Your task to perform on an android device: set an alarm Image 0: 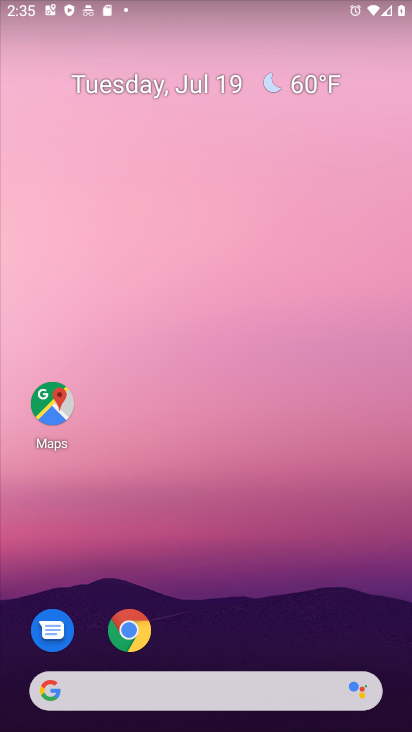
Step 0: drag from (277, 688) to (175, 172)
Your task to perform on an android device: set an alarm Image 1: 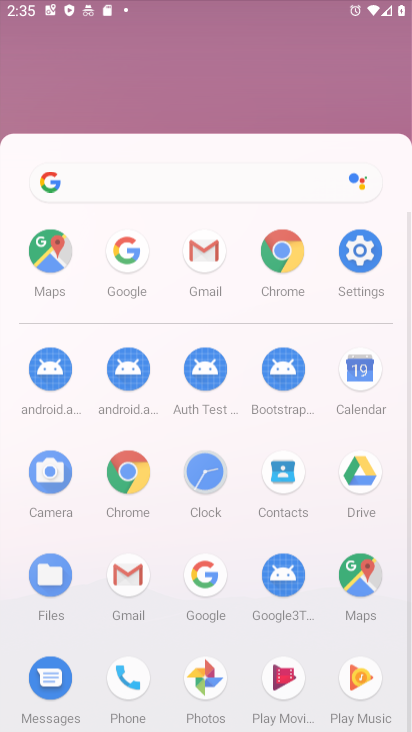
Step 1: drag from (202, 479) to (191, 168)
Your task to perform on an android device: set an alarm Image 2: 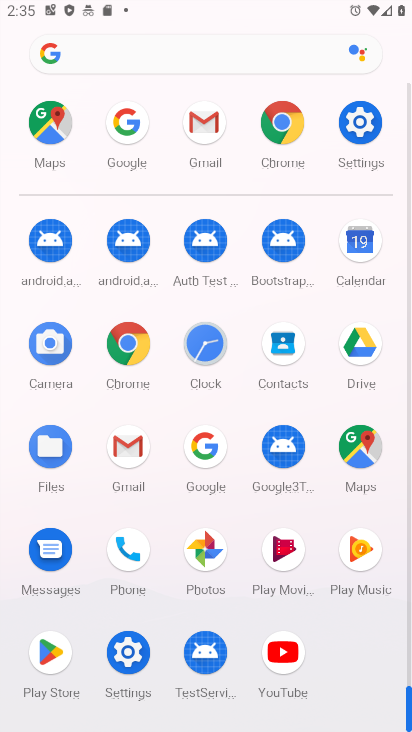
Step 2: click (200, 346)
Your task to perform on an android device: set an alarm Image 3: 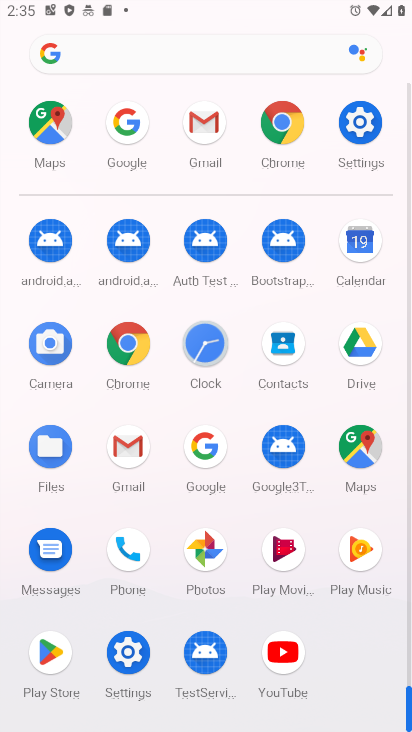
Step 3: click (199, 348)
Your task to perform on an android device: set an alarm Image 4: 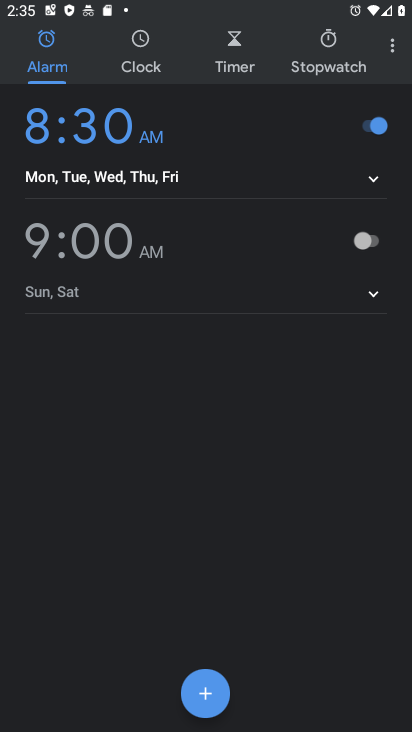
Step 4: click (369, 245)
Your task to perform on an android device: set an alarm Image 5: 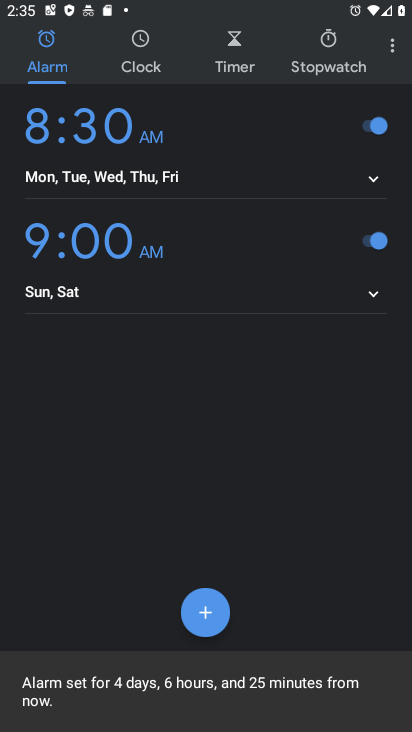
Step 5: task complete